Your task to perform on an android device: turn pop-ups off in chrome Image 0: 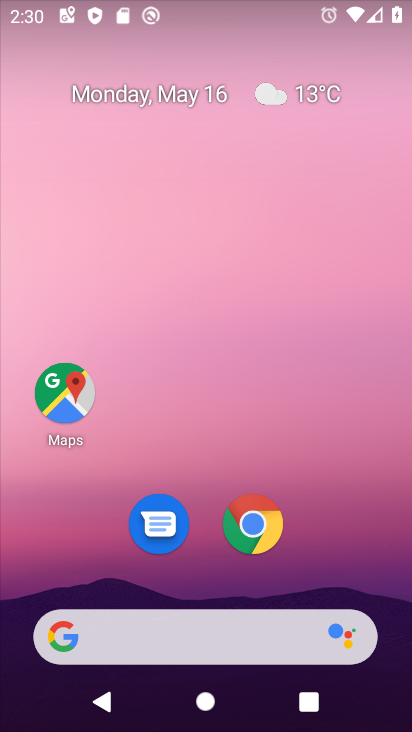
Step 0: click (265, 520)
Your task to perform on an android device: turn pop-ups off in chrome Image 1: 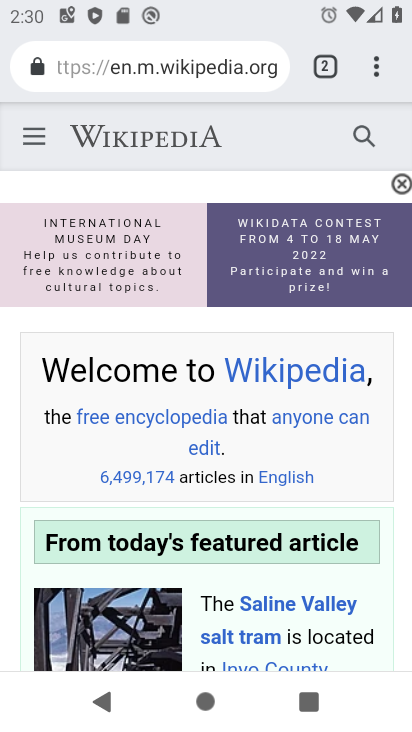
Step 1: click (373, 69)
Your task to perform on an android device: turn pop-ups off in chrome Image 2: 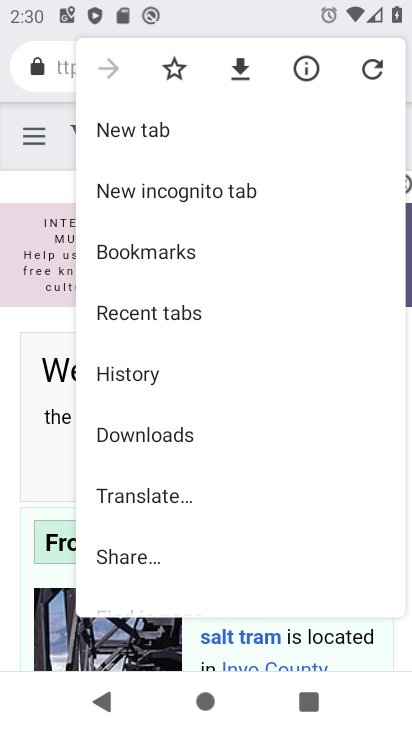
Step 2: drag from (235, 525) to (270, 140)
Your task to perform on an android device: turn pop-ups off in chrome Image 3: 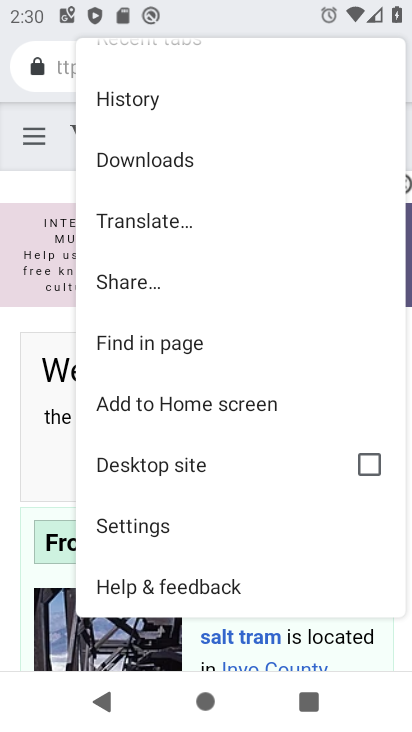
Step 3: click (176, 519)
Your task to perform on an android device: turn pop-ups off in chrome Image 4: 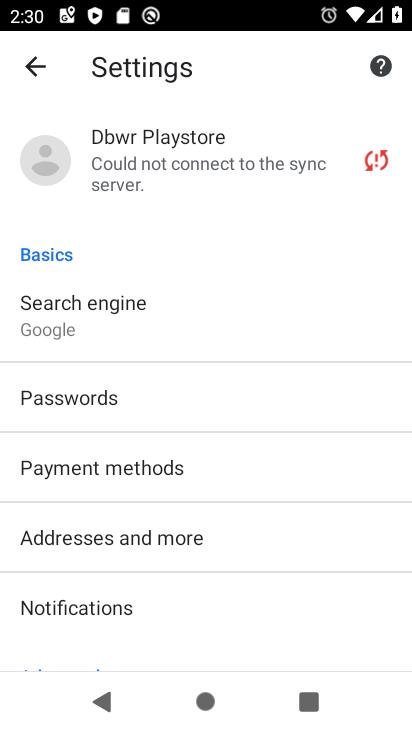
Step 4: drag from (285, 586) to (309, 327)
Your task to perform on an android device: turn pop-ups off in chrome Image 5: 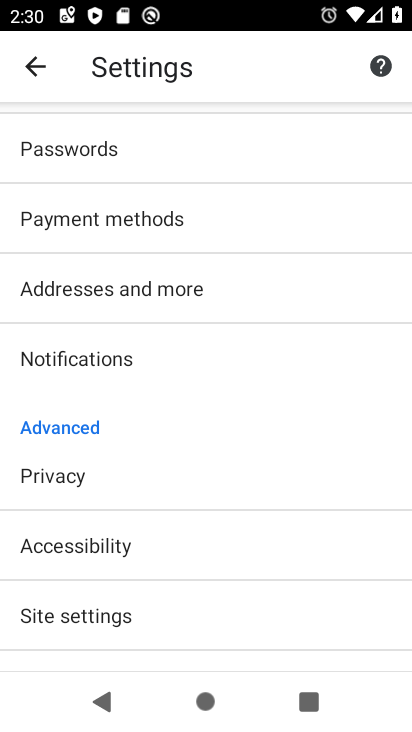
Step 5: click (208, 604)
Your task to perform on an android device: turn pop-ups off in chrome Image 6: 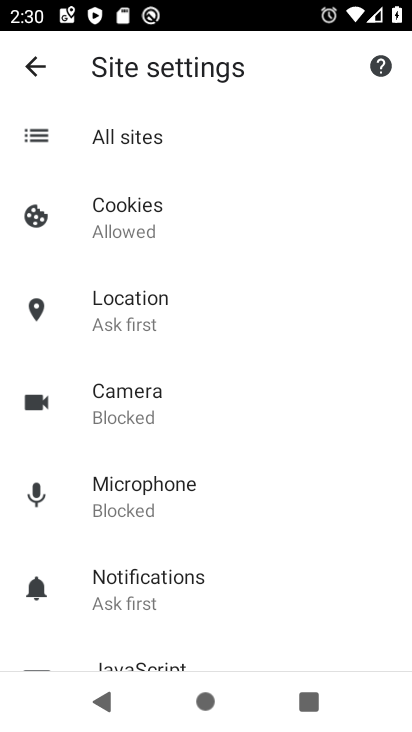
Step 6: drag from (239, 513) to (217, 246)
Your task to perform on an android device: turn pop-ups off in chrome Image 7: 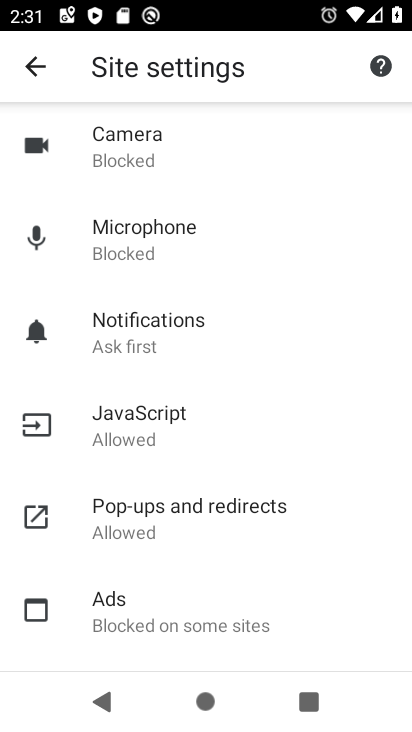
Step 7: click (204, 507)
Your task to perform on an android device: turn pop-ups off in chrome Image 8: 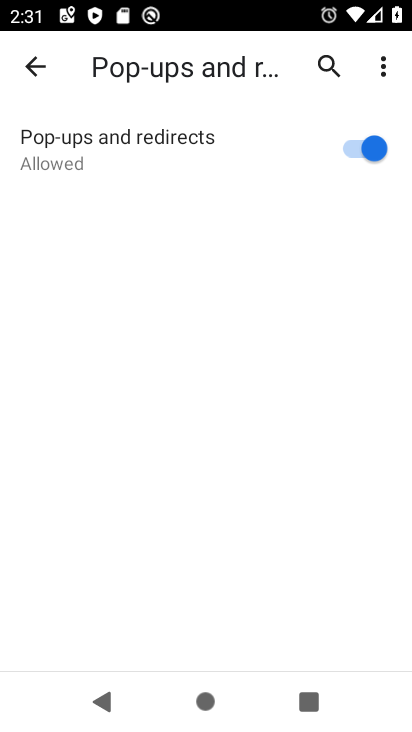
Step 8: click (354, 137)
Your task to perform on an android device: turn pop-ups off in chrome Image 9: 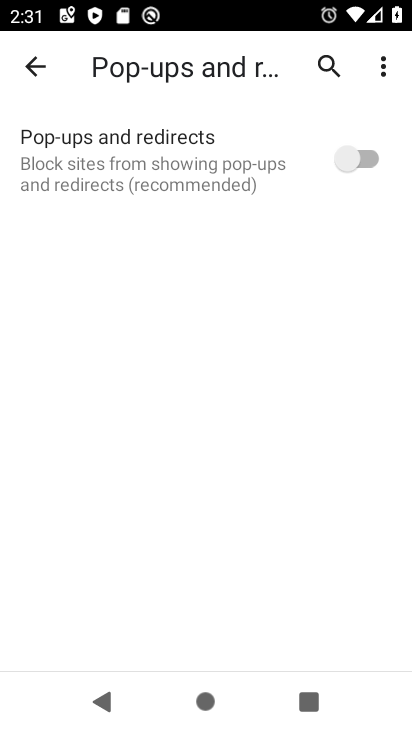
Step 9: task complete